Your task to perform on an android device: Do I have any events tomorrow? Image 0: 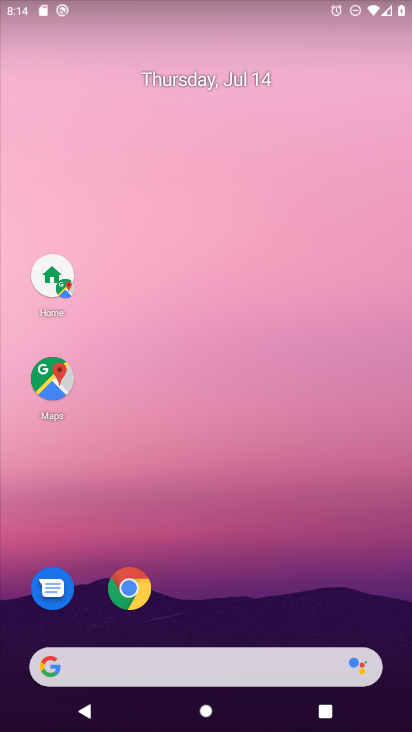
Step 0: drag from (16, 669) to (155, 51)
Your task to perform on an android device: Do I have any events tomorrow? Image 1: 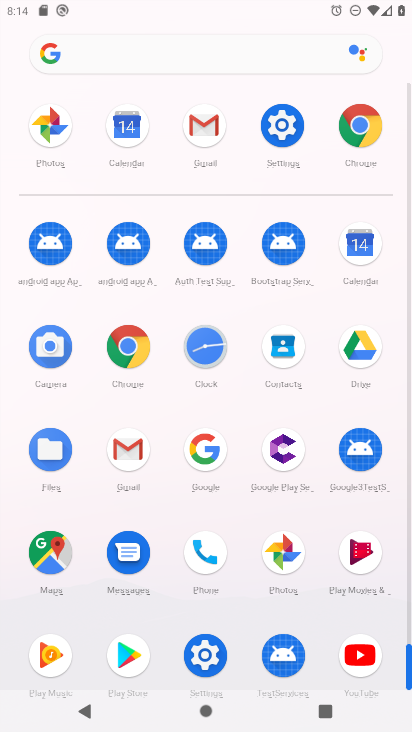
Step 1: click (358, 248)
Your task to perform on an android device: Do I have any events tomorrow? Image 2: 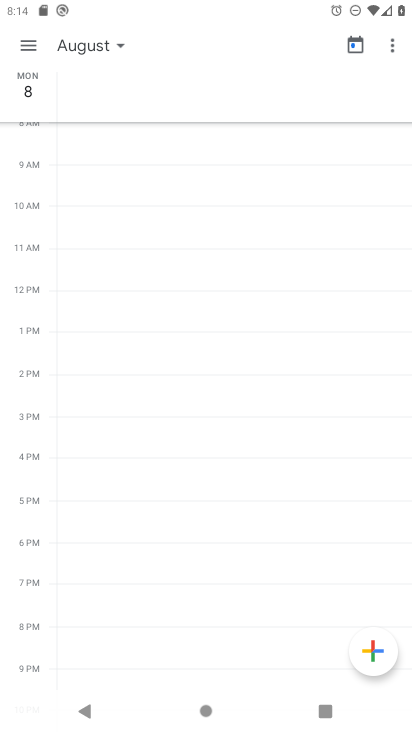
Step 2: click (75, 43)
Your task to perform on an android device: Do I have any events tomorrow? Image 3: 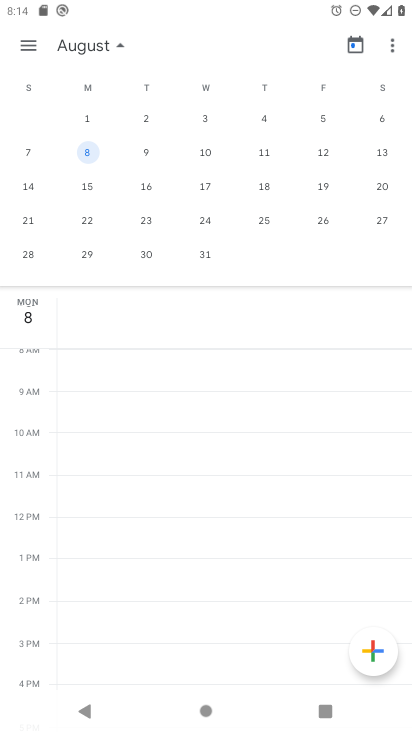
Step 3: drag from (6, 116) to (356, 155)
Your task to perform on an android device: Do I have any events tomorrow? Image 4: 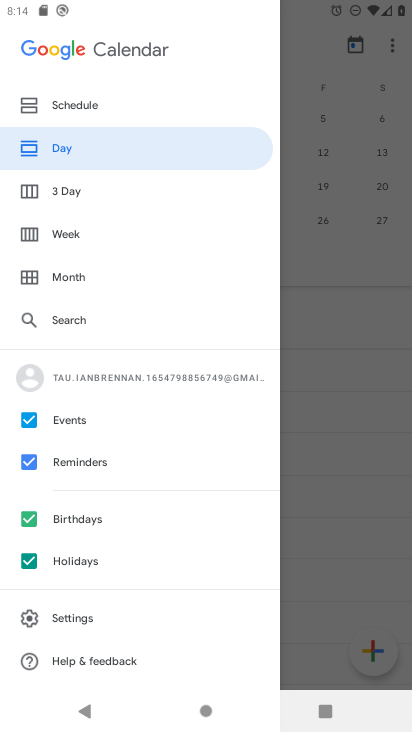
Step 4: click (313, 257)
Your task to perform on an android device: Do I have any events tomorrow? Image 5: 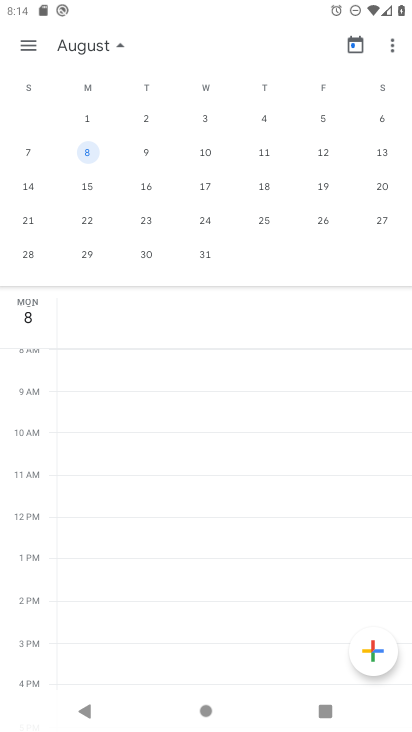
Step 5: drag from (8, 167) to (410, 155)
Your task to perform on an android device: Do I have any events tomorrow? Image 6: 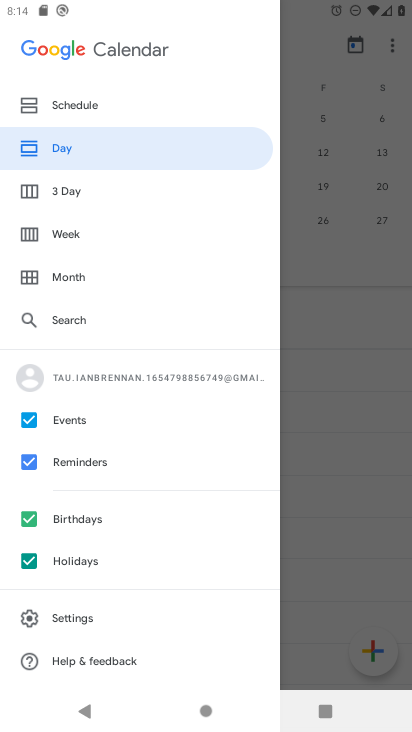
Step 6: click (323, 243)
Your task to perform on an android device: Do I have any events tomorrow? Image 7: 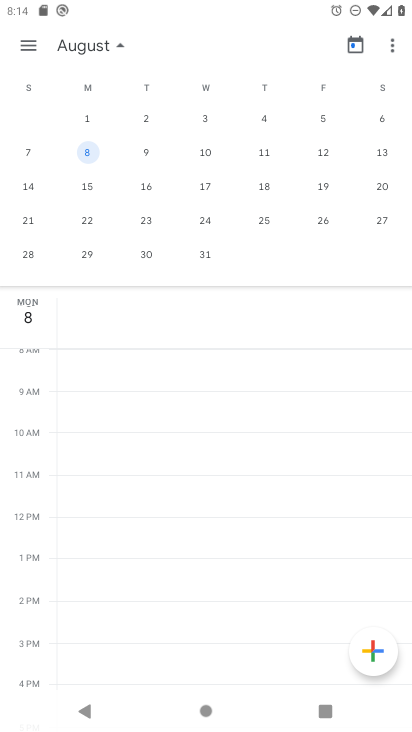
Step 7: task complete